Your task to perform on an android device: change alarm snooze length Image 0: 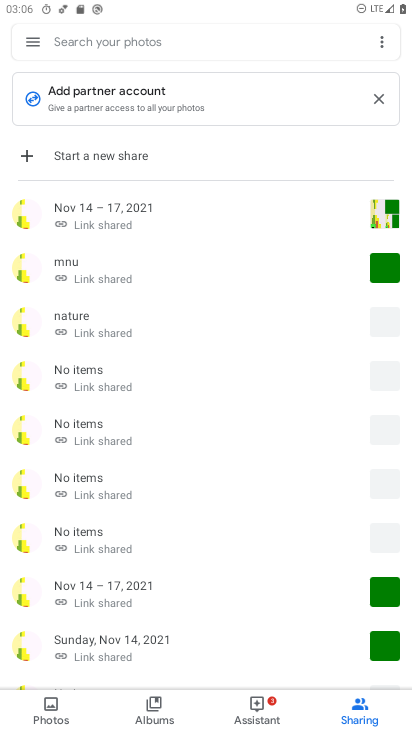
Step 0: press home button
Your task to perform on an android device: change alarm snooze length Image 1: 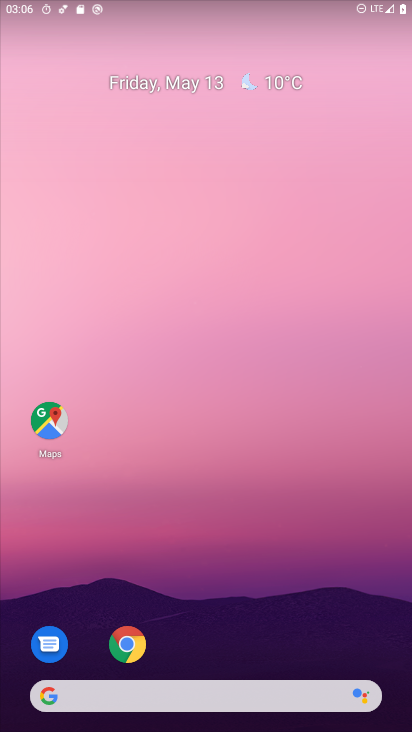
Step 1: drag from (325, 610) to (326, 76)
Your task to perform on an android device: change alarm snooze length Image 2: 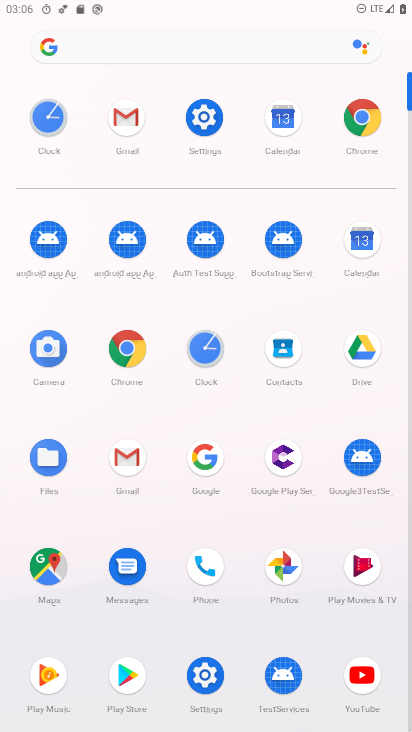
Step 2: click (201, 341)
Your task to perform on an android device: change alarm snooze length Image 3: 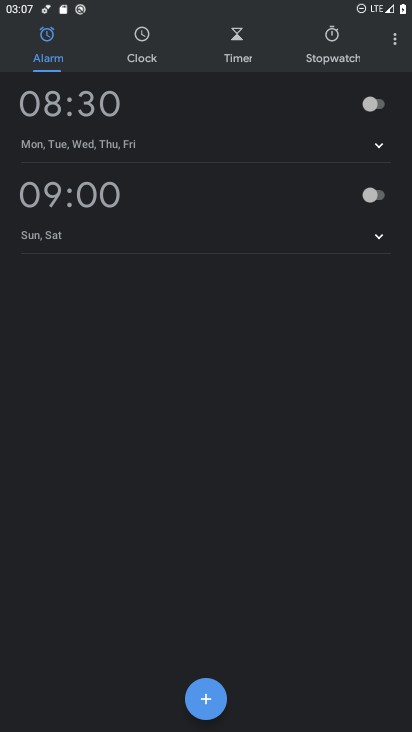
Step 3: click (396, 38)
Your task to perform on an android device: change alarm snooze length Image 4: 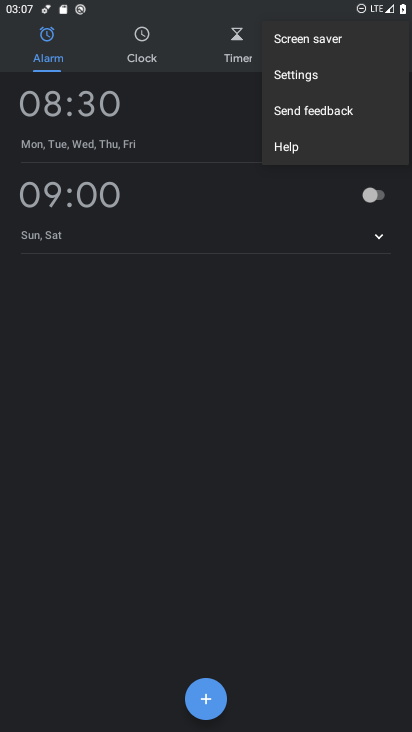
Step 4: click (315, 77)
Your task to perform on an android device: change alarm snooze length Image 5: 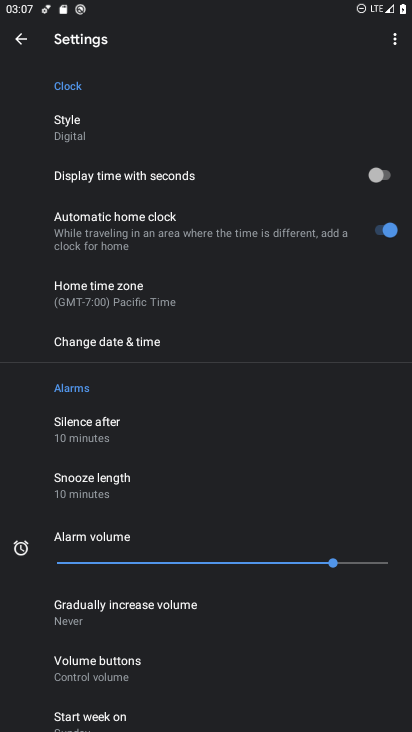
Step 5: click (143, 480)
Your task to perform on an android device: change alarm snooze length Image 6: 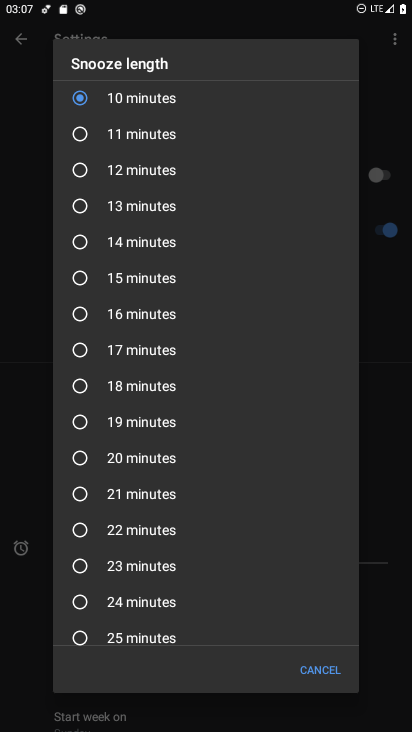
Step 6: click (87, 176)
Your task to perform on an android device: change alarm snooze length Image 7: 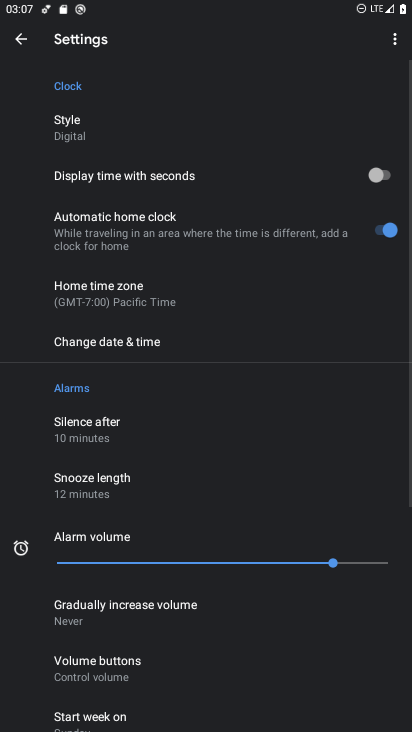
Step 7: task complete